Your task to perform on an android device: turn off airplane mode Image 0: 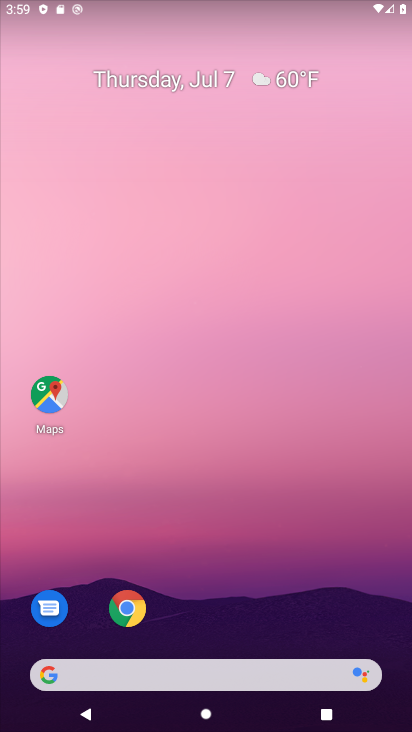
Step 0: drag from (400, 10) to (391, 353)
Your task to perform on an android device: turn off airplane mode Image 1: 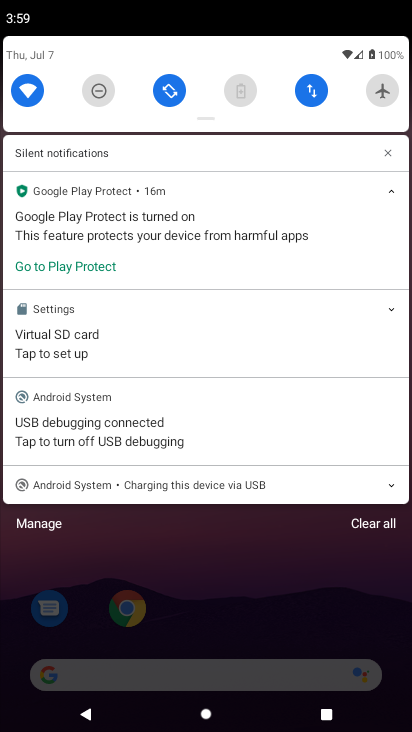
Step 1: task complete